Your task to perform on an android device: read, delete, or share a saved page in the chrome app Image 0: 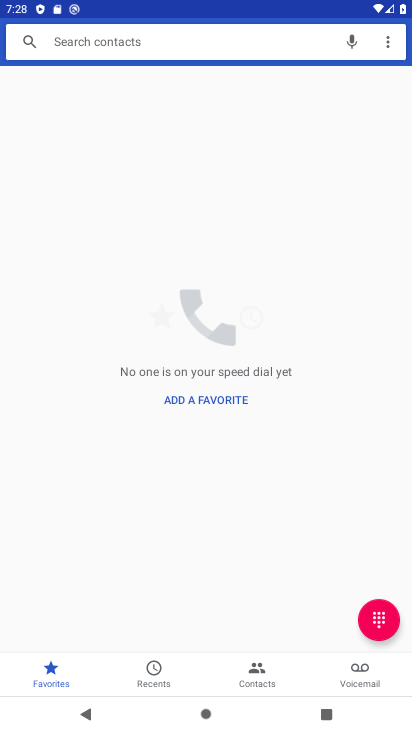
Step 0: press home button
Your task to perform on an android device: read, delete, or share a saved page in the chrome app Image 1: 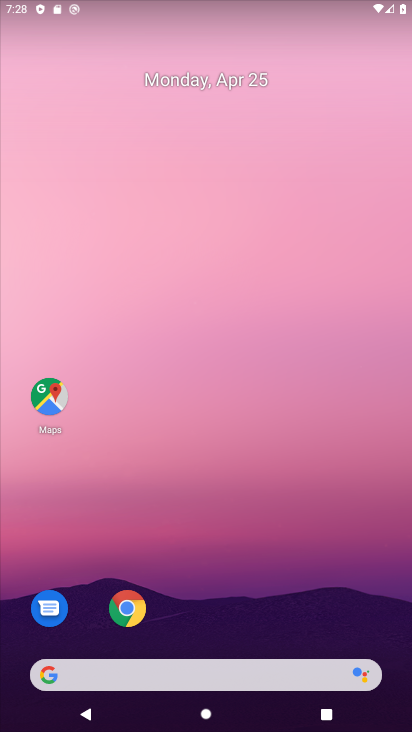
Step 1: click (130, 603)
Your task to perform on an android device: read, delete, or share a saved page in the chrome app Image 2: 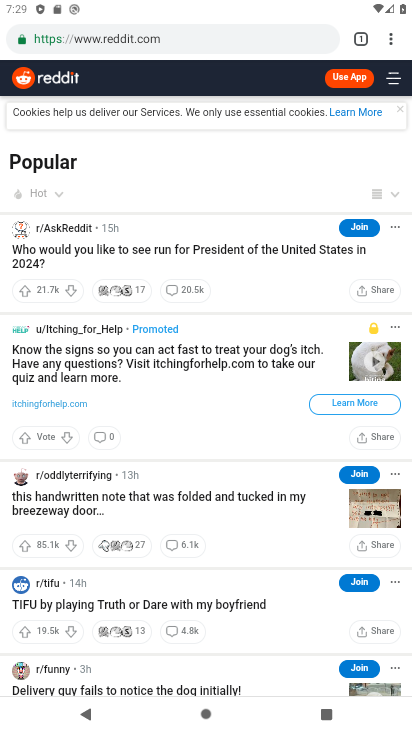
Step 2: click (394, 38)
Your task to perform on an android device: read, delete, or share a saved page in the chrome app Image 3: 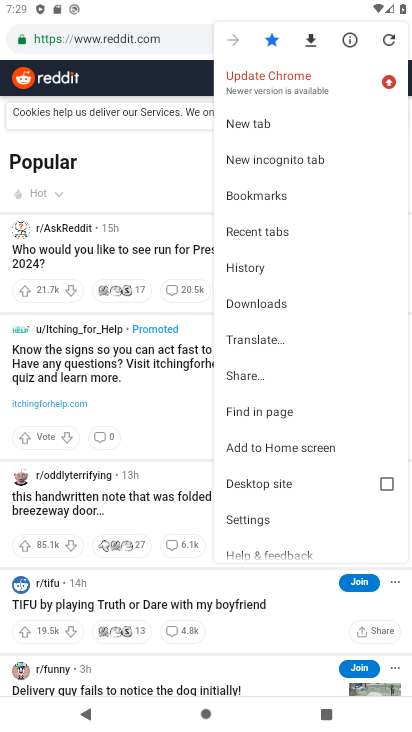
Step 3: click (260, 301)
Your task to perform on an android device: read, delete, or share a saved page in the chrome app Image 4: 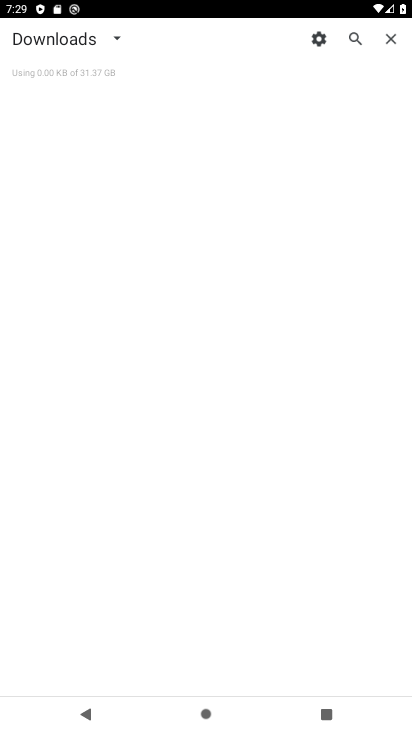
Step 4: click (105, 38)
Your task to perform on an android device: read, delete, or share a saved page in the chrome app Image 5: 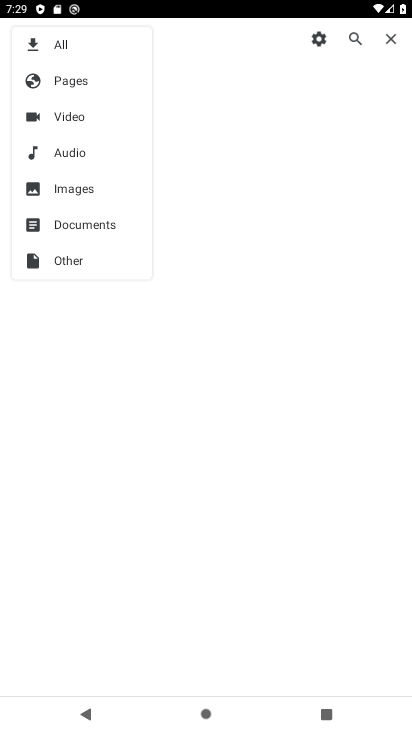
Step 5: click (86, 81)
Your task to perform on an android device: read, delete, or share a saved page in the chrome app Image 6: 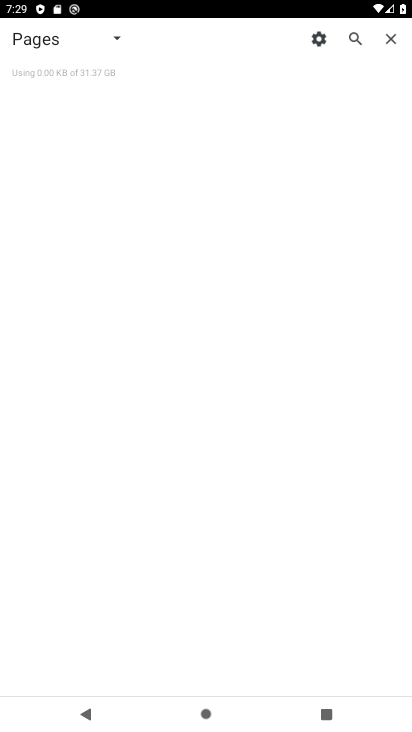
Step 6: task complete